Your task to perform on an android device: choose inbox layout in the gmail app Image 0: 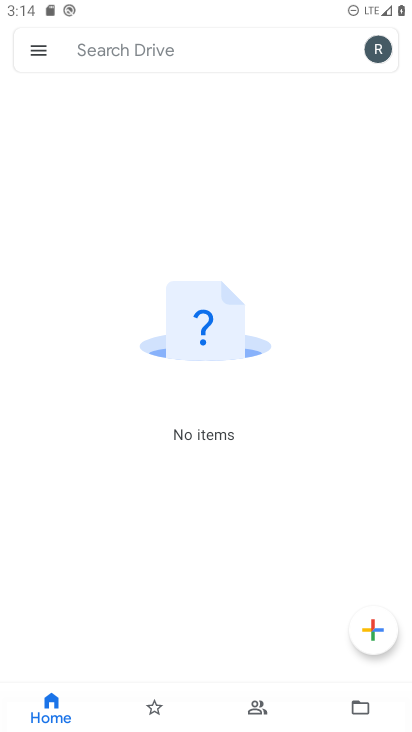
Step 0: press home button
Your task to perform on an android device: choose inbox layout in the gmail app Image 1: 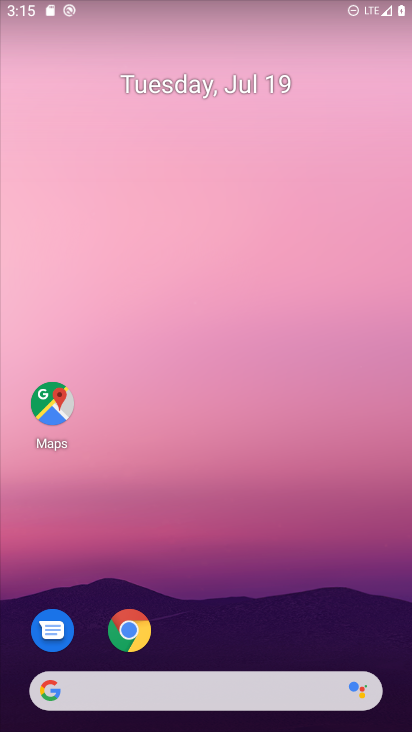
Step 1: drag from (386, 647) to (311, 38)
Your task to perform on an android device: choose inbox layout in the gmail app Image 2: 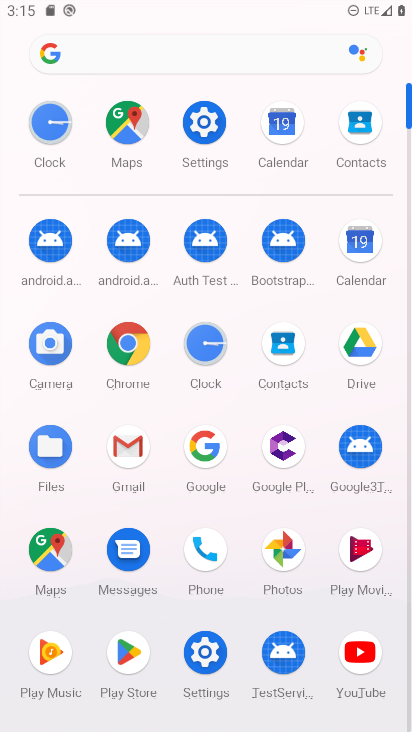
Step 2: click (127, 448)
Your task to perform on an android device: choose inbox layout in the gmail app Image 3: 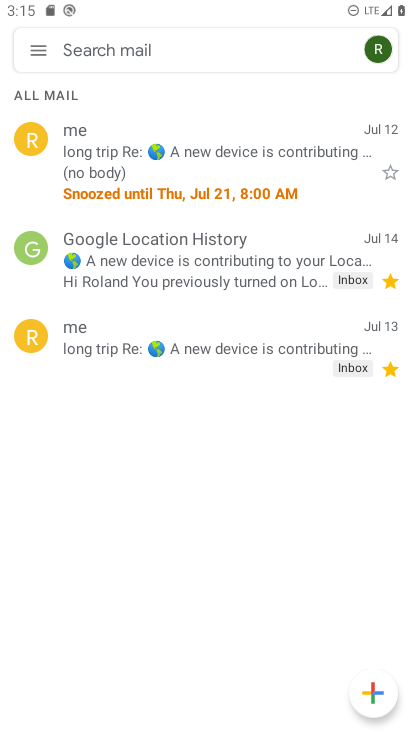
Step 3: click (35, 51)
Your task to perform on an android device: choose inbox layout in the gmail app Image 4: 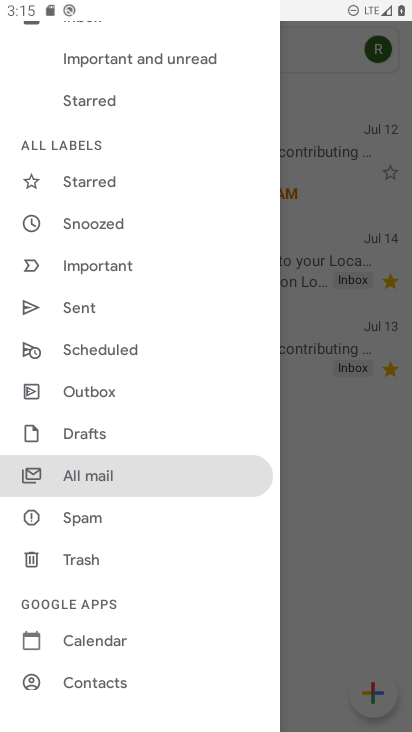
Step 4: drag from (166, 673) to (149, 235)
Your task to perform on an android device: choose inbox layout in the gmail app Image 5: 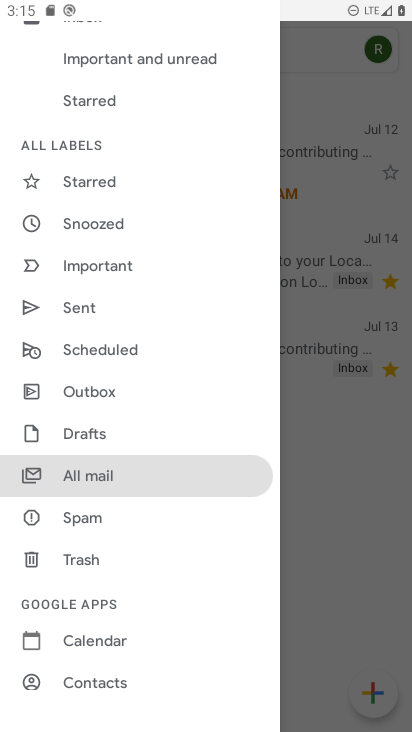
Step 5: drag from (157, 664) to (167, 218)
Your task to perform on an android device: choose inbox layout in the gmail app Image 6: 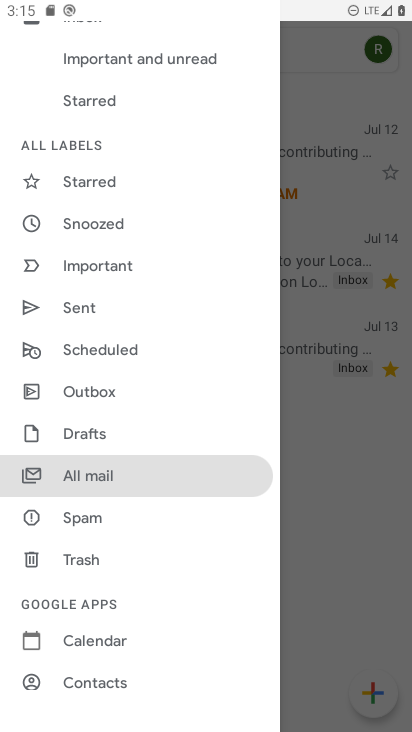
Step 6: drag from (166, 694) to (194, 232)
Your task to perform on an android device: choose inbox layout in the gmail app Image 7: 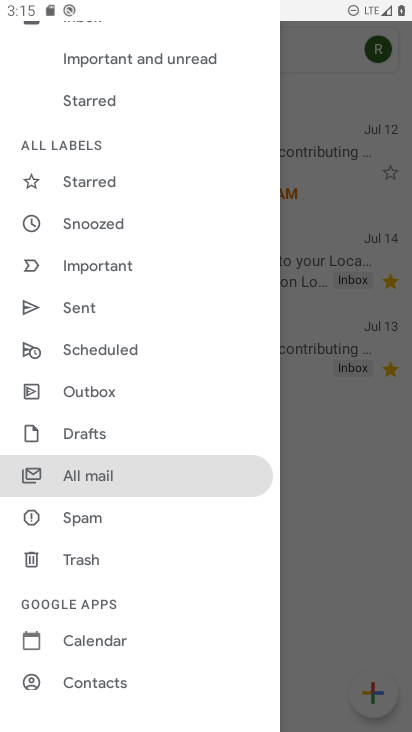
Step 7: drag from (166, 664) to (185, 165)
Your task to perform on an android device: choose inbox layout in the gmail app Image 8: 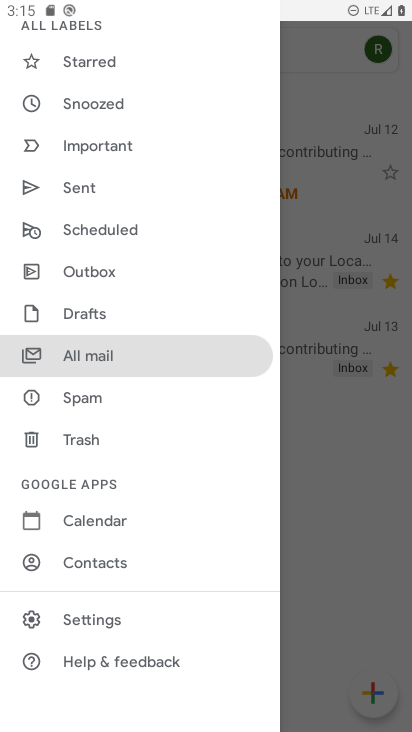
Step 8: click (96, 614)
Your task to perform on an android device: choose inbox layout in the gmail app Image 9: 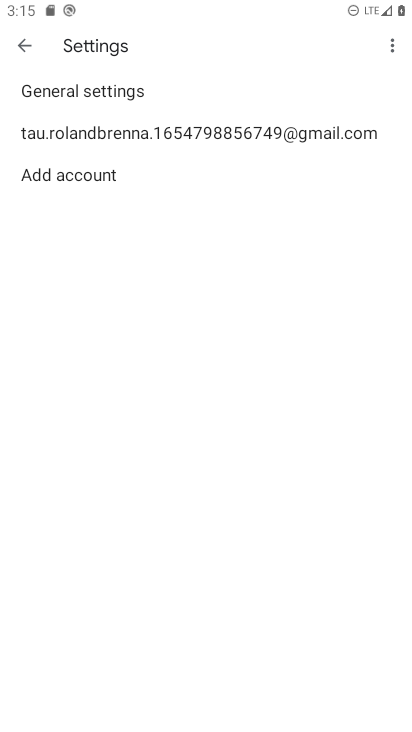
Step 9: click (149, 135)
Your task to perform on an android device: choose inbox layout in the gmail app Image 10: 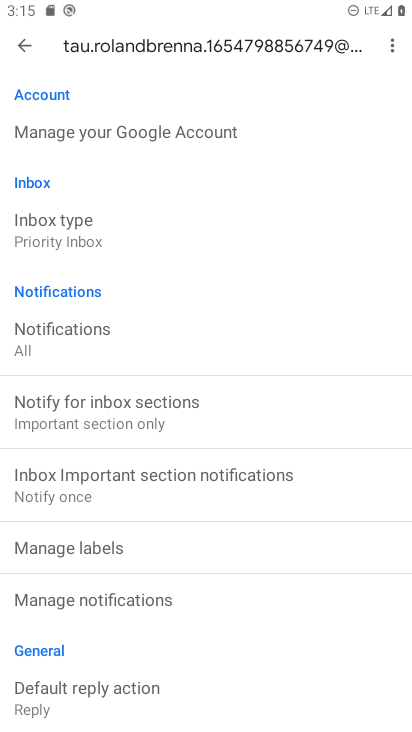
Step 10: click (51, 219)
Your task to perform on an android device: choose inbox layout in the gmail app Image 11: 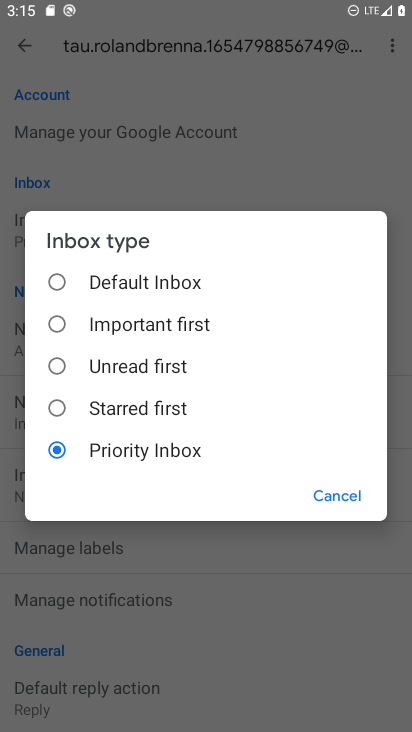
Step 11: click (54, 283)
Your task to perform on an android device: choose inbox layout in the gmail app Image 12: 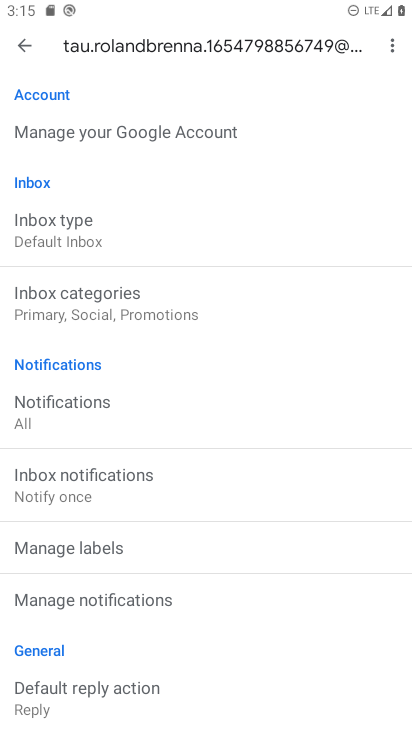
Step 12: task complete